Your task to perform on an android device: When is my next meeting? Image 0: 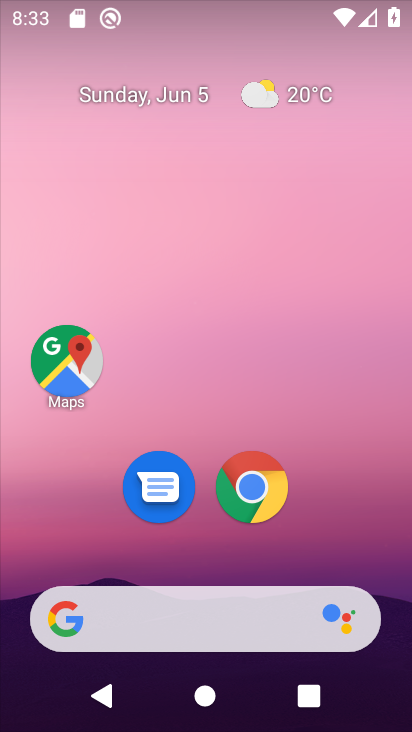
Step 0: drag from (228, 583) to (263, 200)
Your task to perform on an android device: When is my next meeting? Image 1: 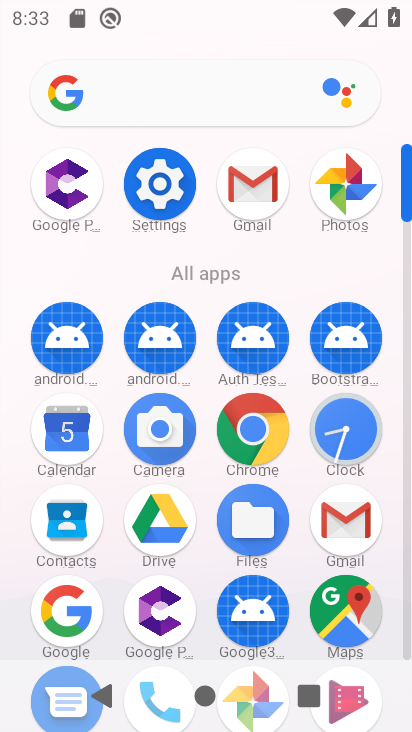
Step 1: click (65, 431)
Your task to perform on an android device: When is my next meeting? Image 2: 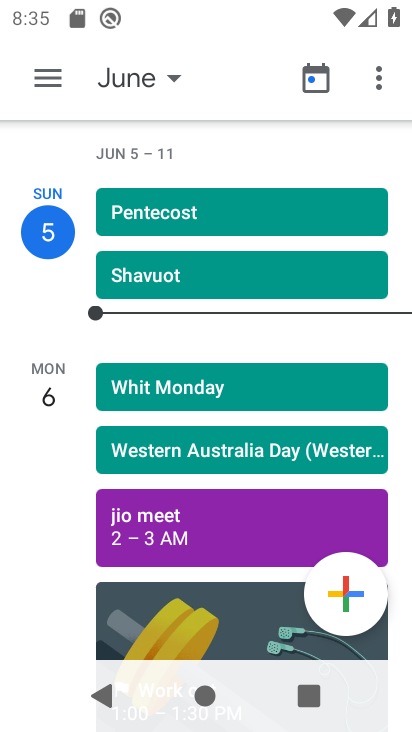
Step 2: task complete